Your task to perform on an android device: check storage Image 0: 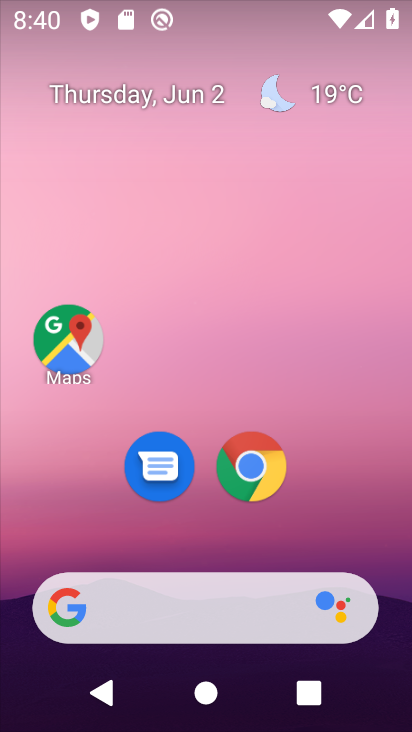
Step 0: drag from (220, 549) to (263, 86)
Your task to perform on an android device: check storage Image 1: 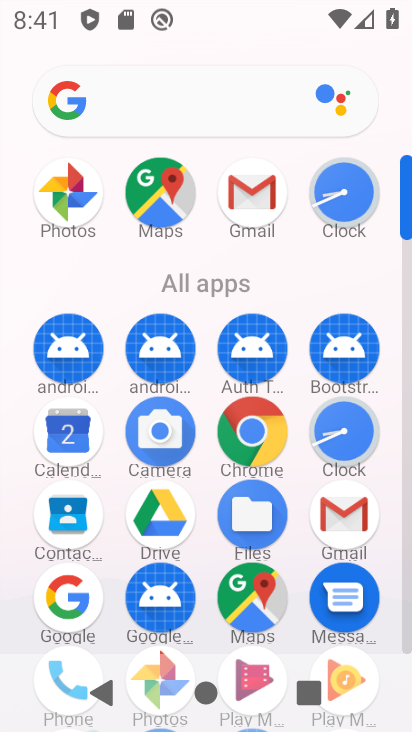
Step 1: drag from (141, 551) to (211, 318)
Your task to perform on an android device: check storage Image 2: 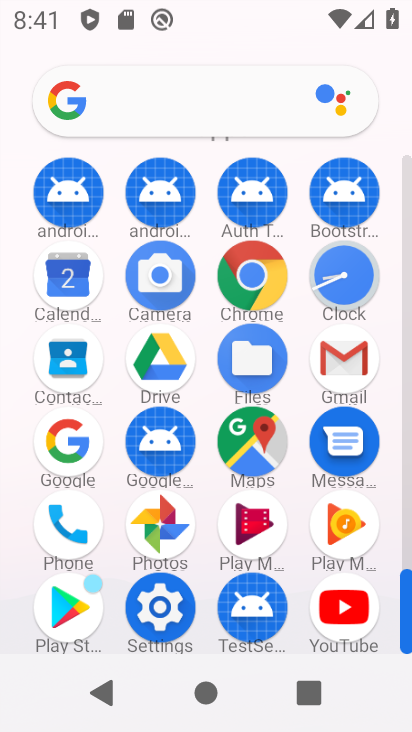
Step 2: click (162, 607)
Your task to perform on an android device: check storage Image 3: 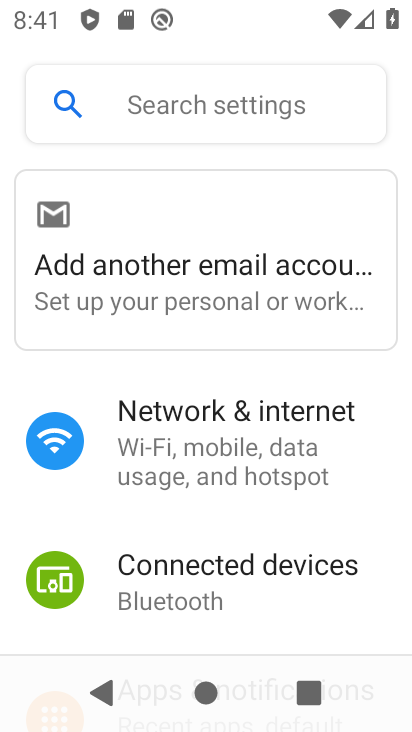
Step 3: drag from (255, 561) to (247, 321)
Your task to perform on an android device: check storage Image 4: 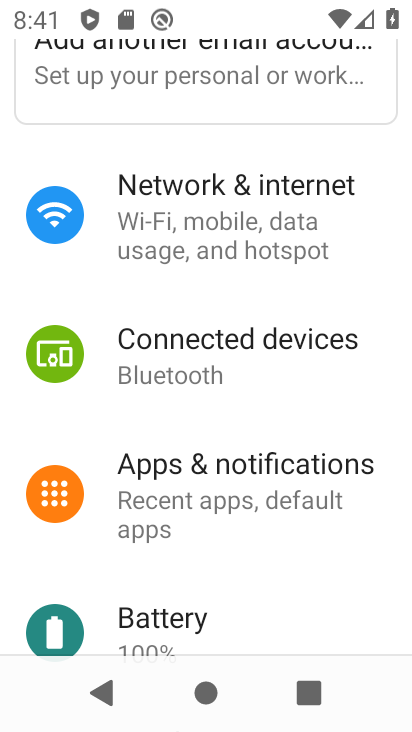
Step 4: drag from (282, 579) to (270, 253)
Your task to perform on an android device: check storage Image 5: 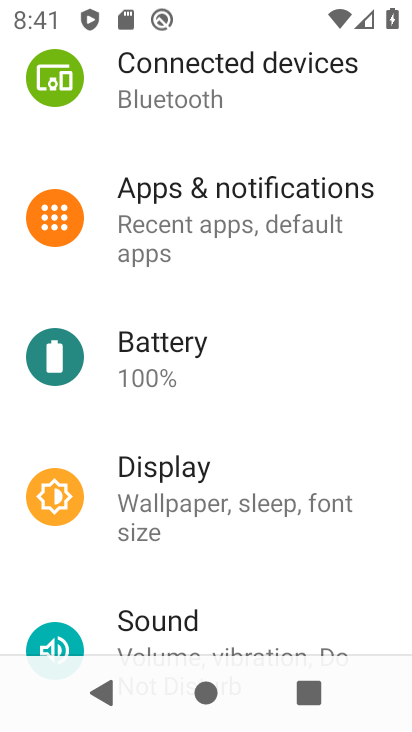
Step 5: drag from (184, 539) to (183, 197)
Your task to perform on an android device: check storage Image 6: 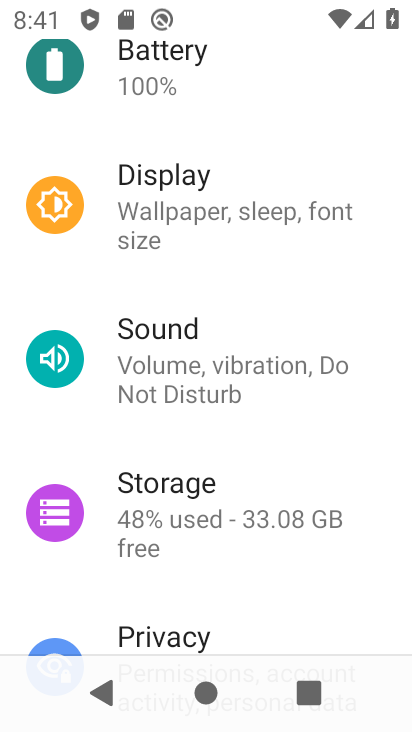
Step 6: click (203, 509)
Your task to perform on an android device: check storage Image 7: 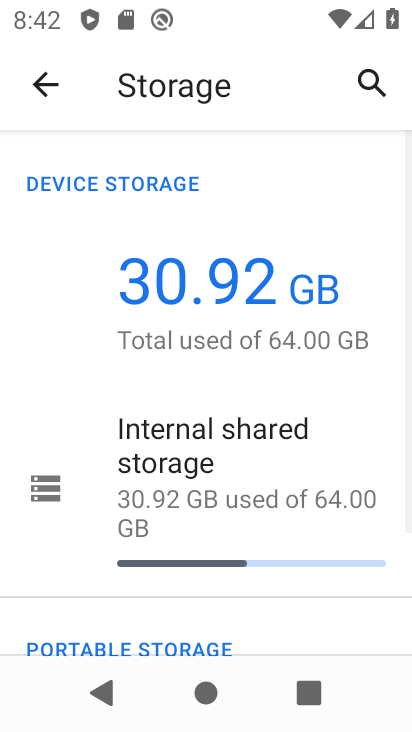
Step 7: task complete